Your task to perform on an android device: refresh tabs in the chrome app Image 0: 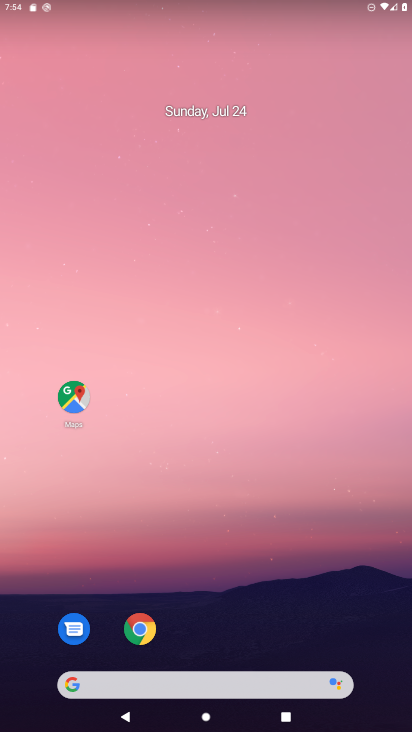
Step 0: drag from (355, 613) to (136, 37)
Your task to perform on an android device: refresh tabs in the chrome app Image 1: 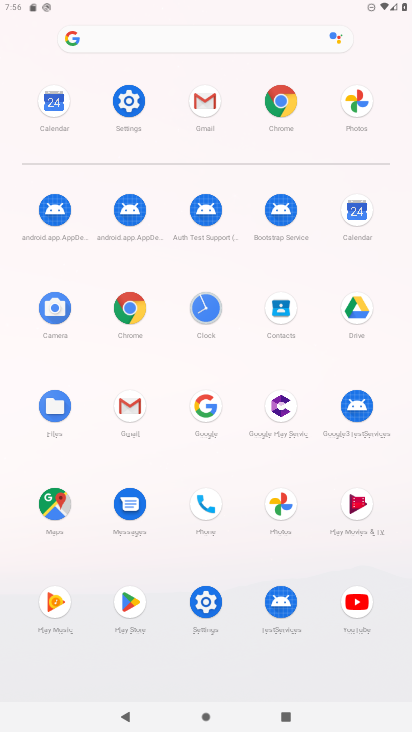
Step 1: click (129, 312)
Your task to perform on an android device: refresh tabs in the chrome app Image 2: 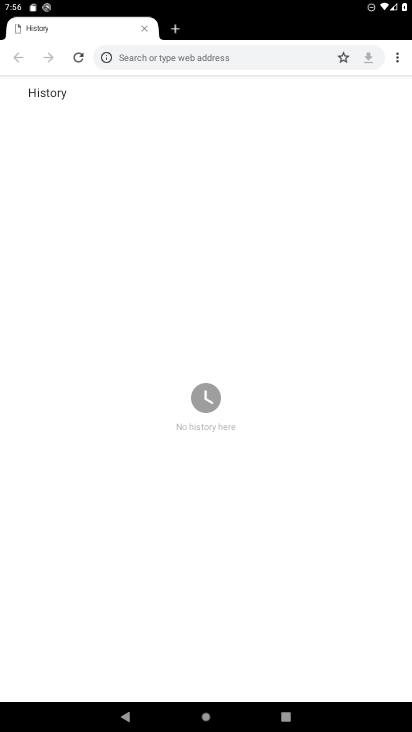
Step 2: click (400, 48)
Your task to perform on an android device: refresh tabs in the chrome app Image 3: 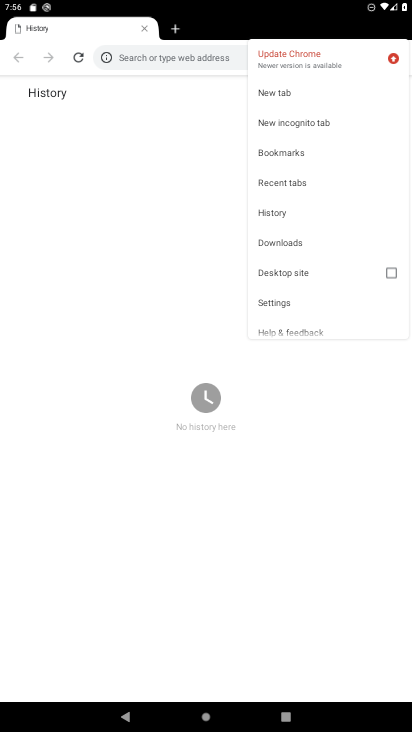
Step 3: task complete